Your task to perform on an android device: Open the phone app and click the voicemail tab. Image 0: 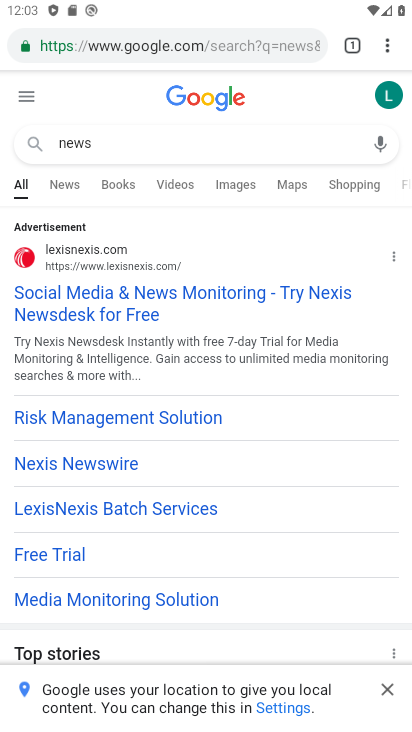
Step 0: press home button
Your task to perform on an android device: Open the phone app and click the voicemail tab. Image 1: 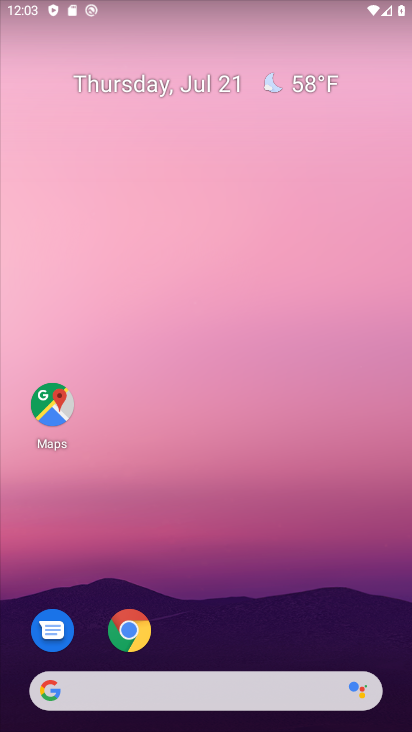
Step 1: drag from (234, 692) to (200, 209)
Your task to perform on an android device: Open the phone app and click the voicemail tab. Image 2: 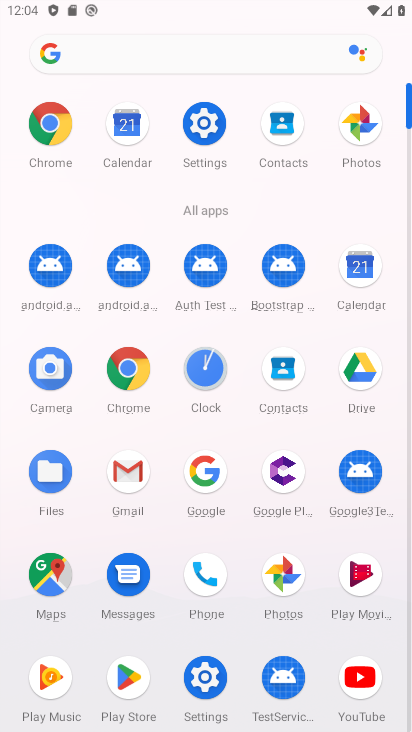
Step 2: click (202, 571)
Your task to perform on an android device: Open the phone app and click the voicemail tab. Image 3: 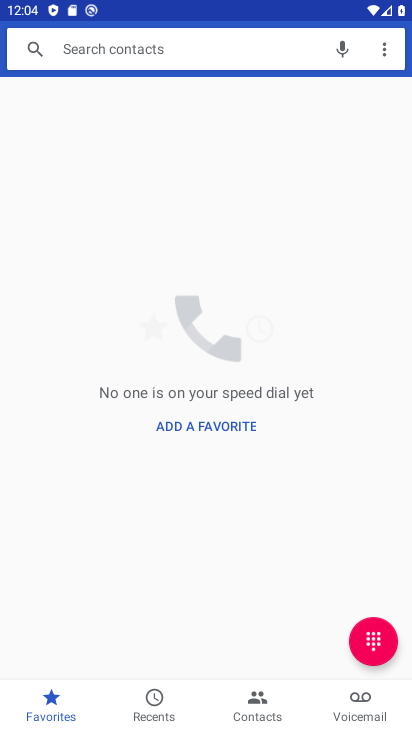
Step 3: click (362, 704)
Your task to perform on an android device: Open the phone app and click the voicemail tab. Image 4: 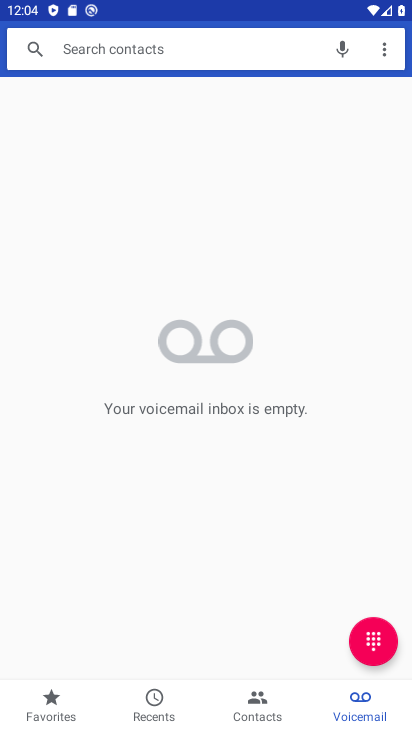
Step 4: task complete